Your task to perform on an android device: What's the news in Trinidad and Tobago? Image 0: 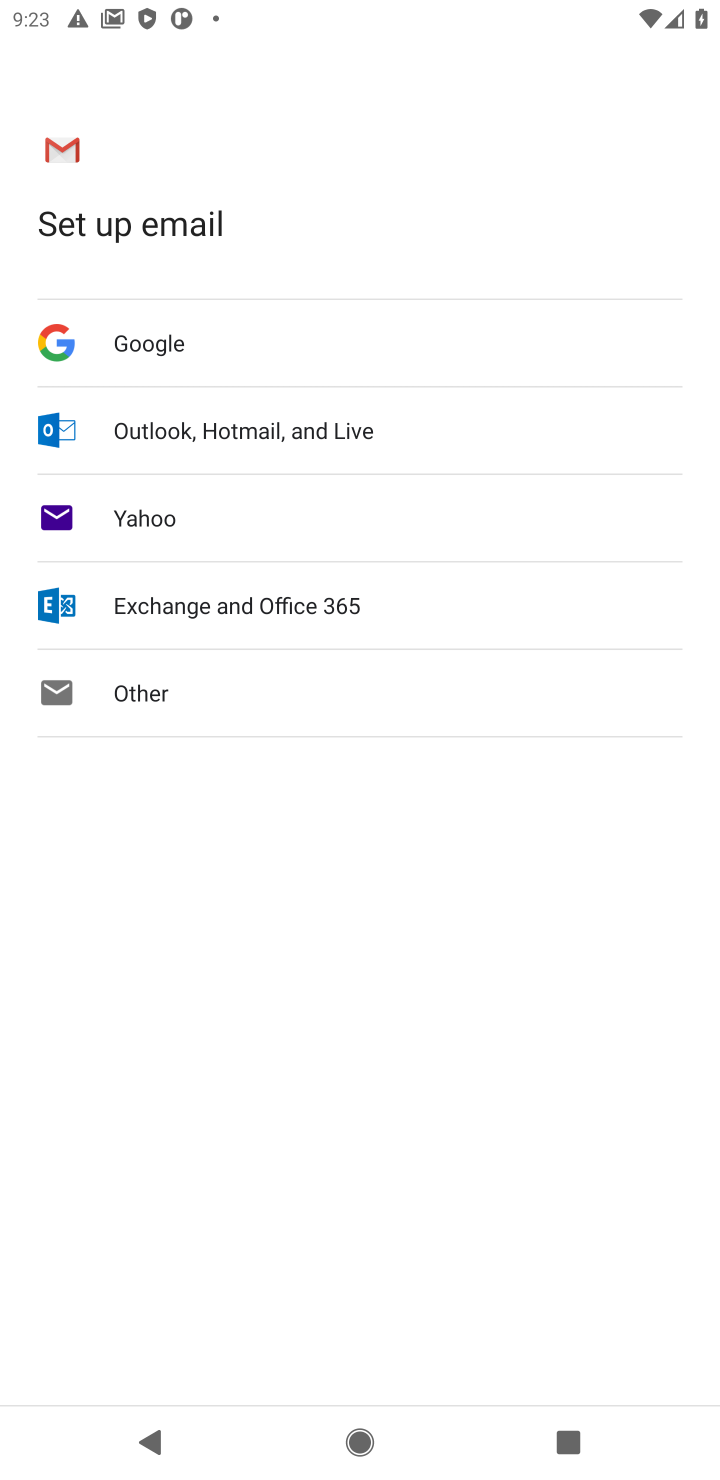
Step 0: press home button
Your task to perform on an android device: What's the news in Trinidad and Tobago? Image 1: 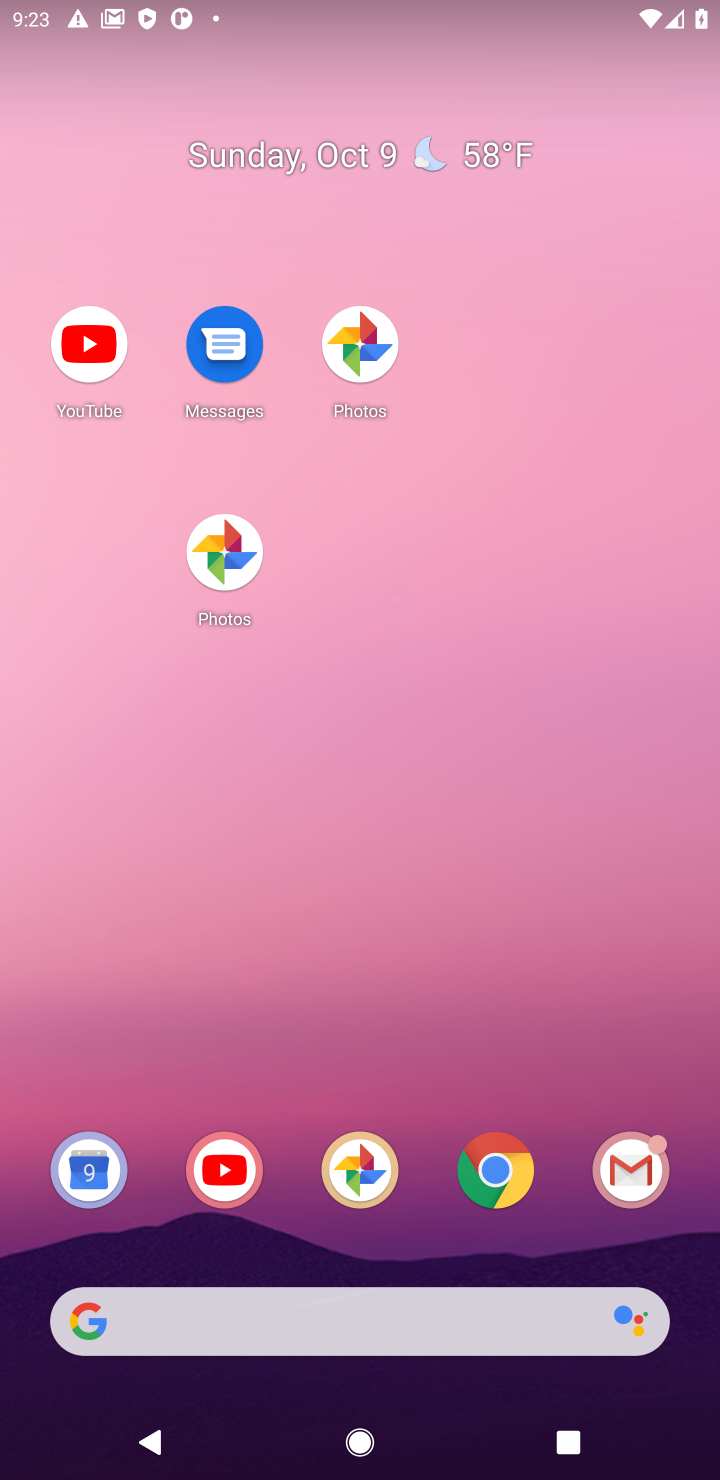
Step 1: click (697, 1336)
Your task to perform on an android device: What's the news in Trinidad and Tobago? Image 2: 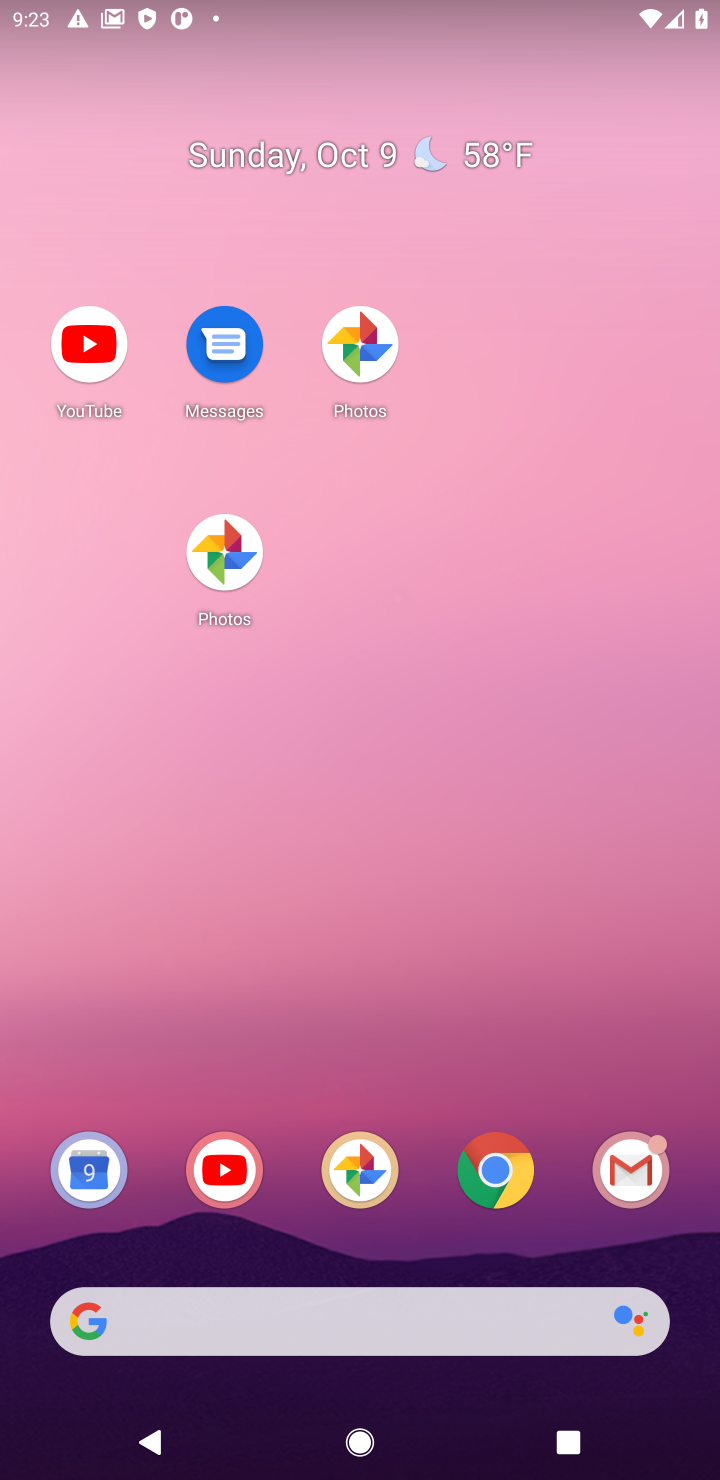
Step 2: click (444, 1300)
Your task to perform on an android device: What's the news in Trinidad and Tobago? Image 3: 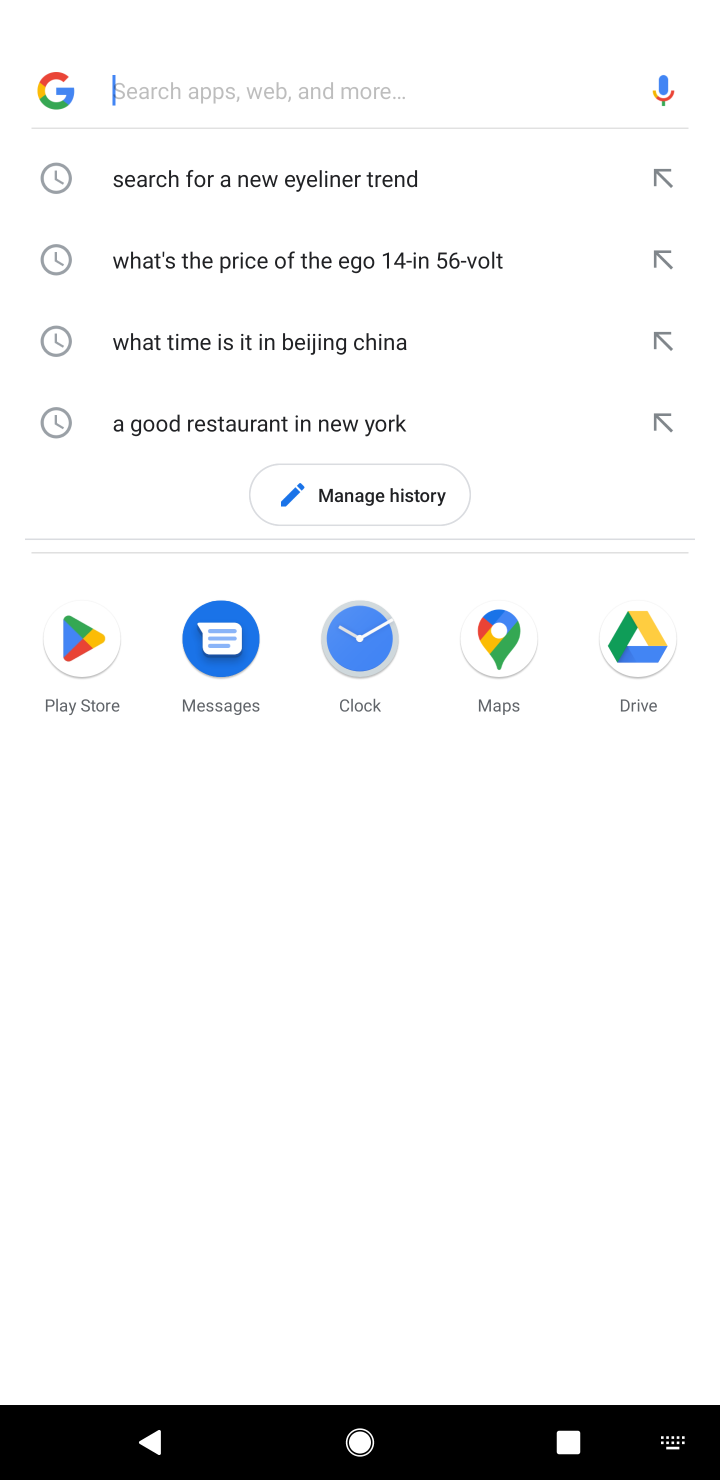
Step 3: type "What's the news in Trinidad and Tobago?"
Your task to perform on an android device: What's the news in Trinidad and Tobago? Image 4: 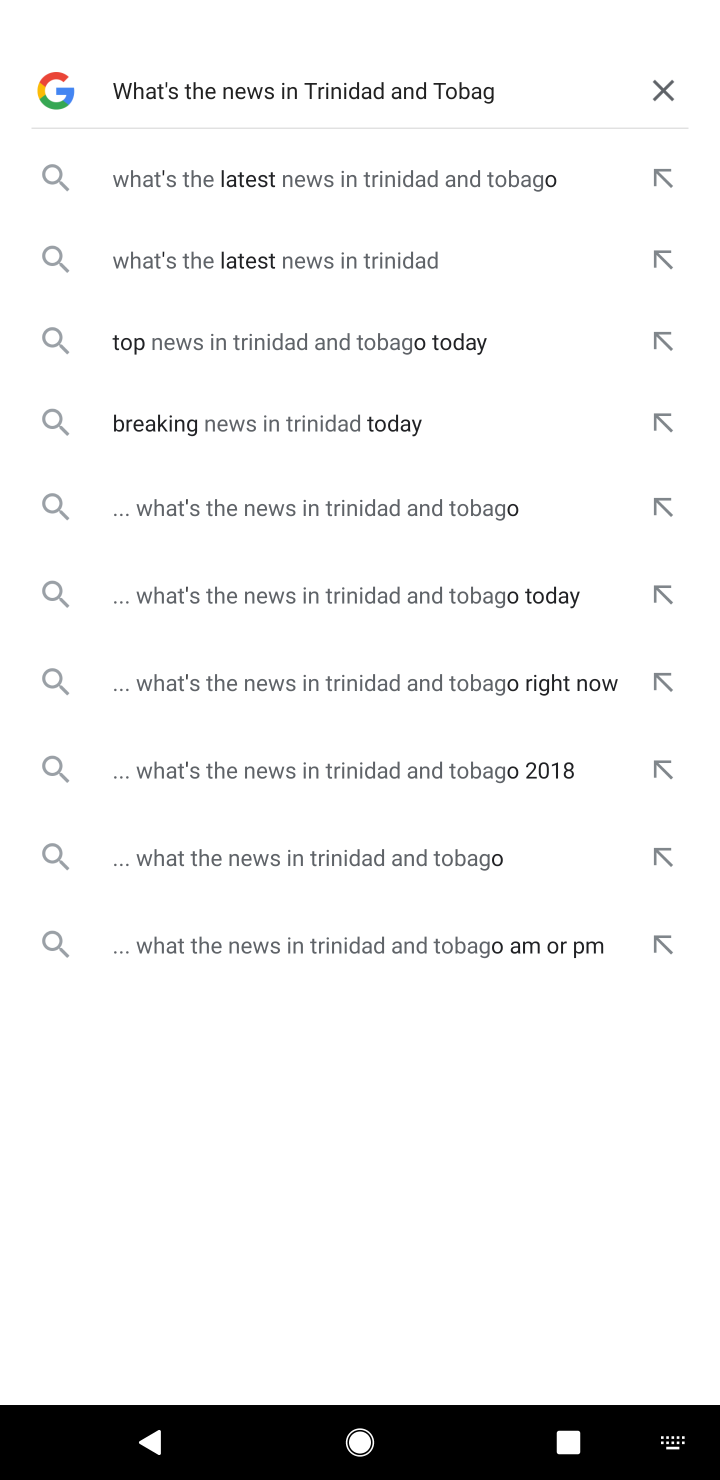
Step 4: click (483, 170)
Your task to perform on an android device: What's the news in Trinidad and Tobago? Image 5: 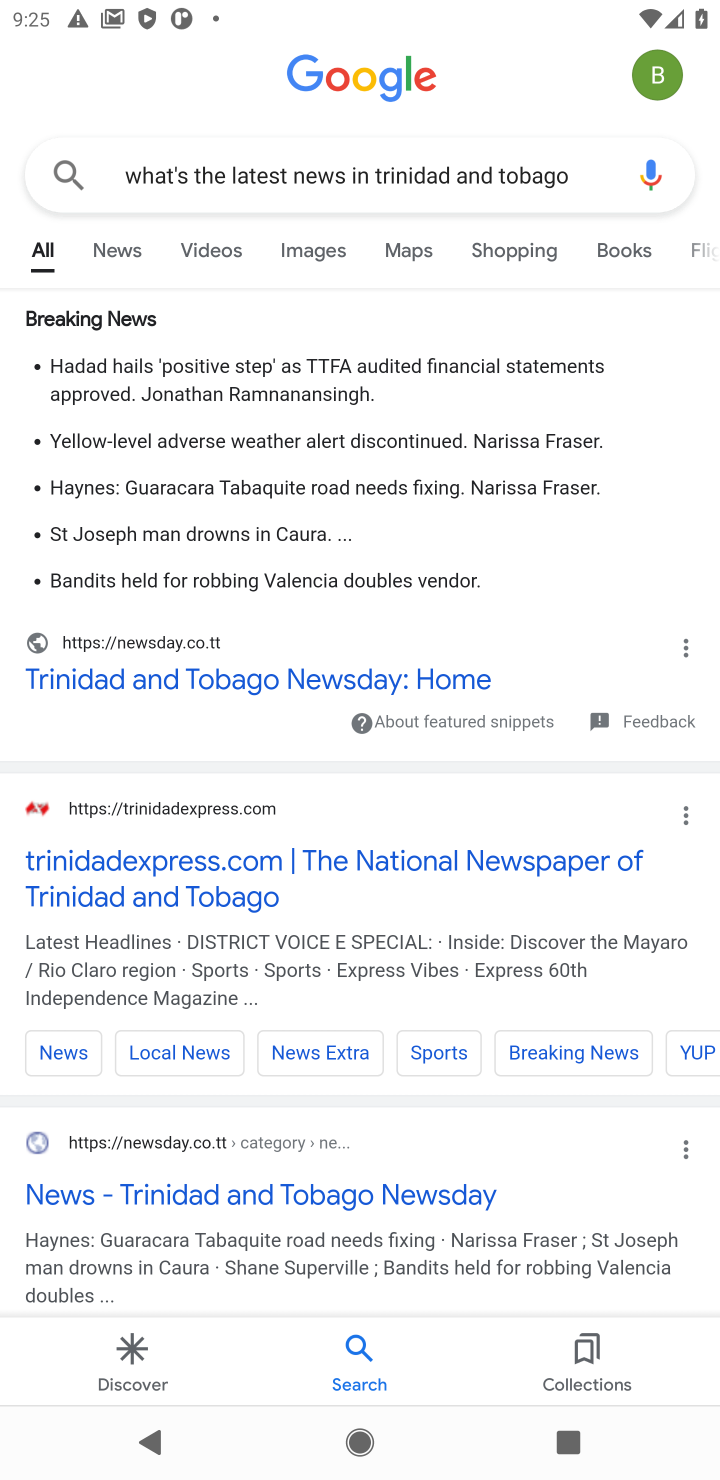
Step 5: task complete